Your task to perform on an android device: empty trash in the gmail app Image 0: 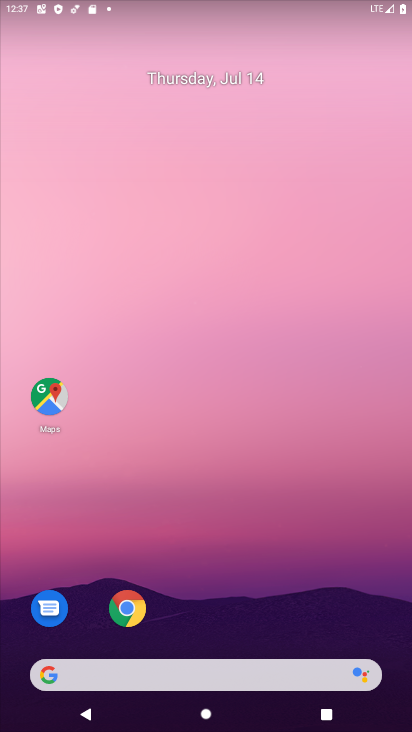
Step 0: press home button
Your task to perform on an android device: empty trash in the gmail app Image 1: 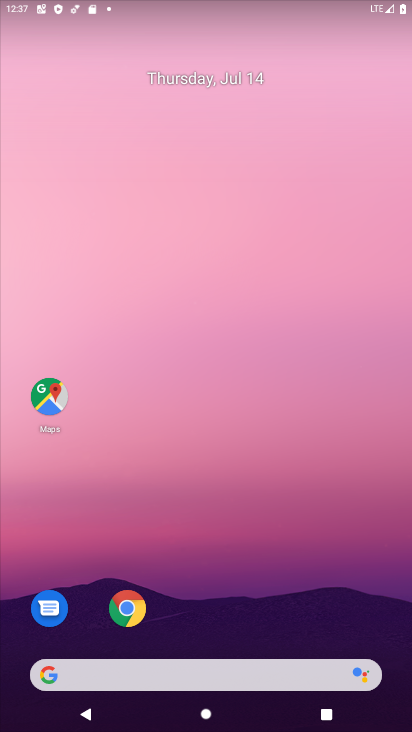
Step 1: drag from (22, 619) to (186, 131)
Your task to perform on an android device: empty trash in the gmail app Image 2: 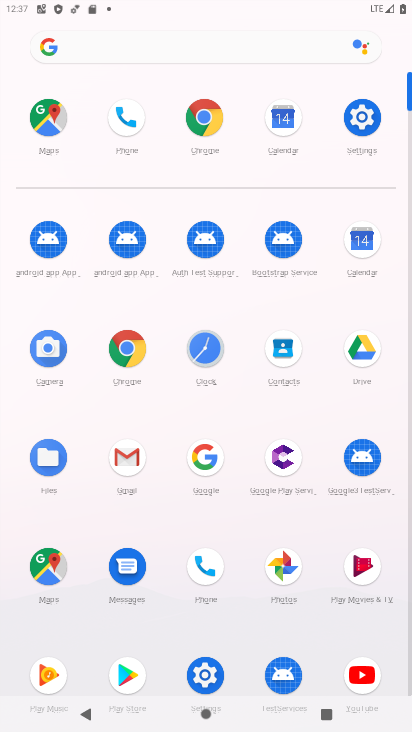
Step 2: click (119, 467)
Your task to perform on an android device: empty trash in the gmail app Image 3: 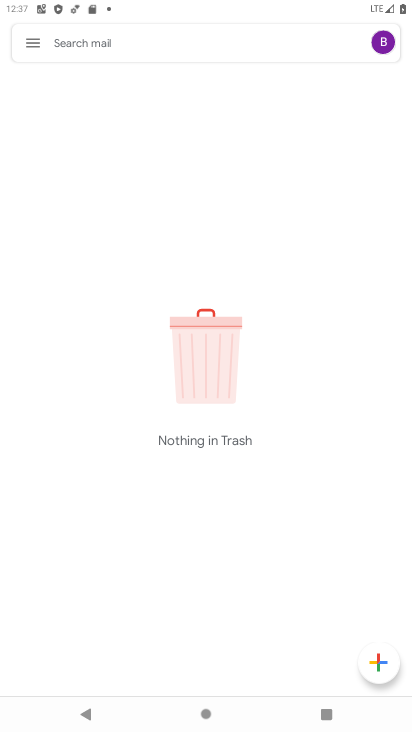
Step 3: task complete